Your task to perform on an android device: find which apps use the phone's location Image 0: 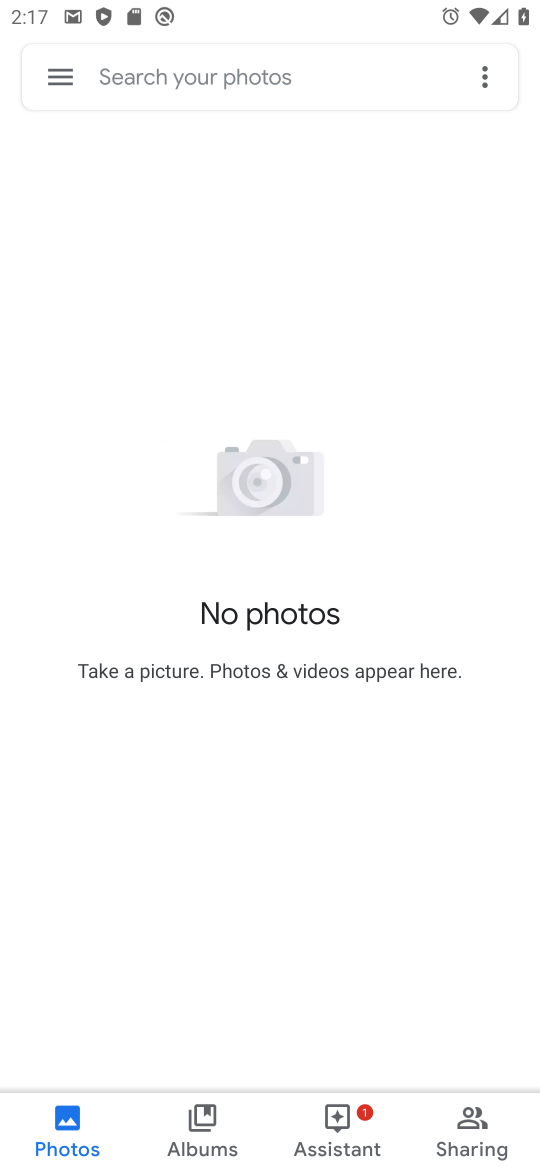
Step 0: press home button
Your task to perform on an android device: find which apps use the phone's location Image 1: 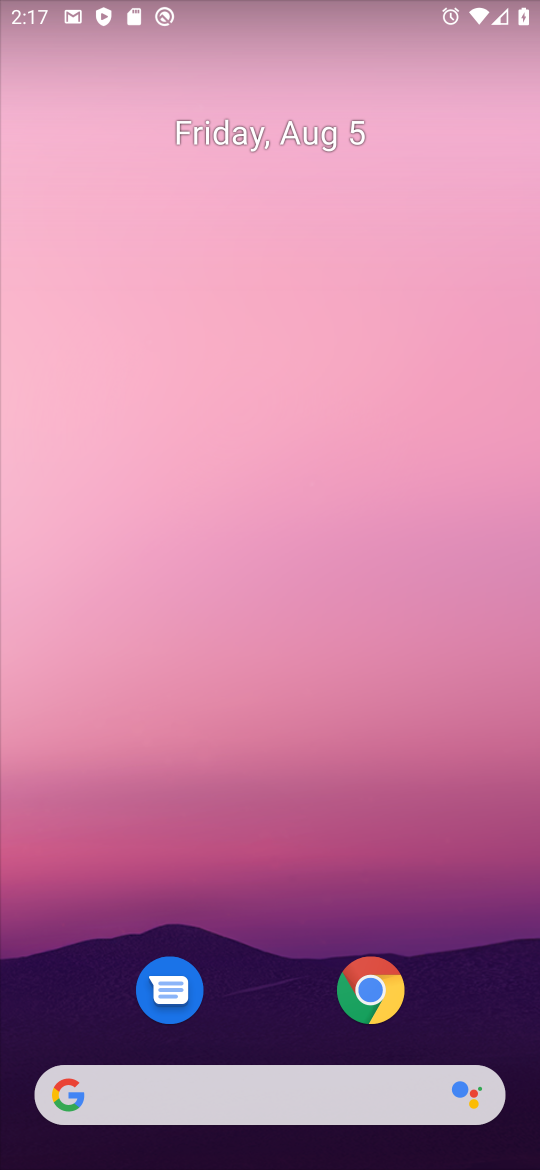
Step 1: drag from (228, 1037) to (153, 289)
Your task to perform on an android device: find which apps use the phone's location Image 2: 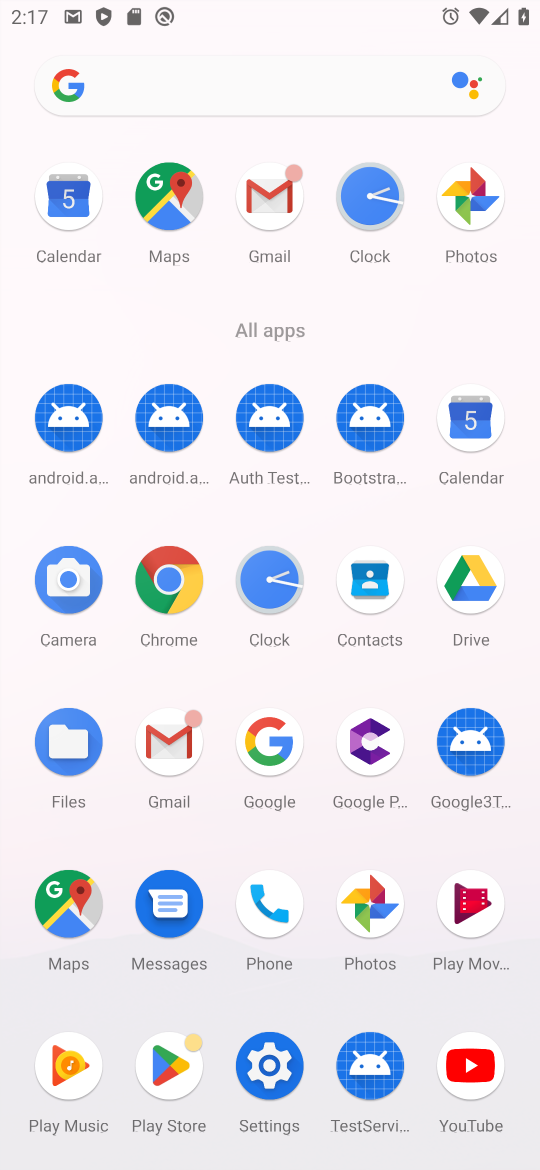
Step 2: click (284, 1087)
Your task to perform on an android device: find which apps use the phone's location Image 3: 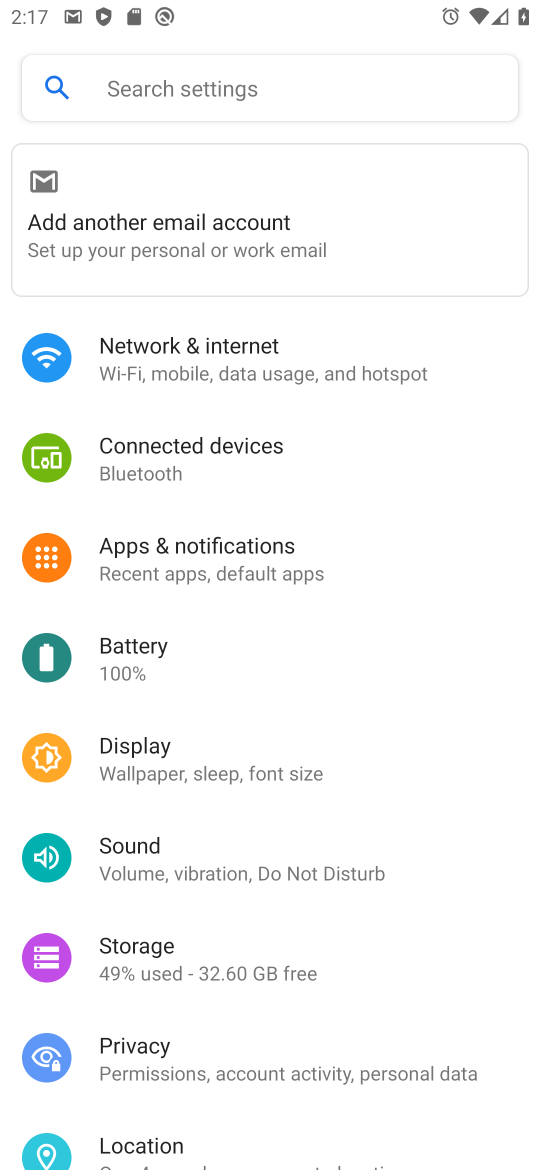
Step 3: click (149, 1148)
Your task to perform on an android device: find which apps use the phone's location Image 4: 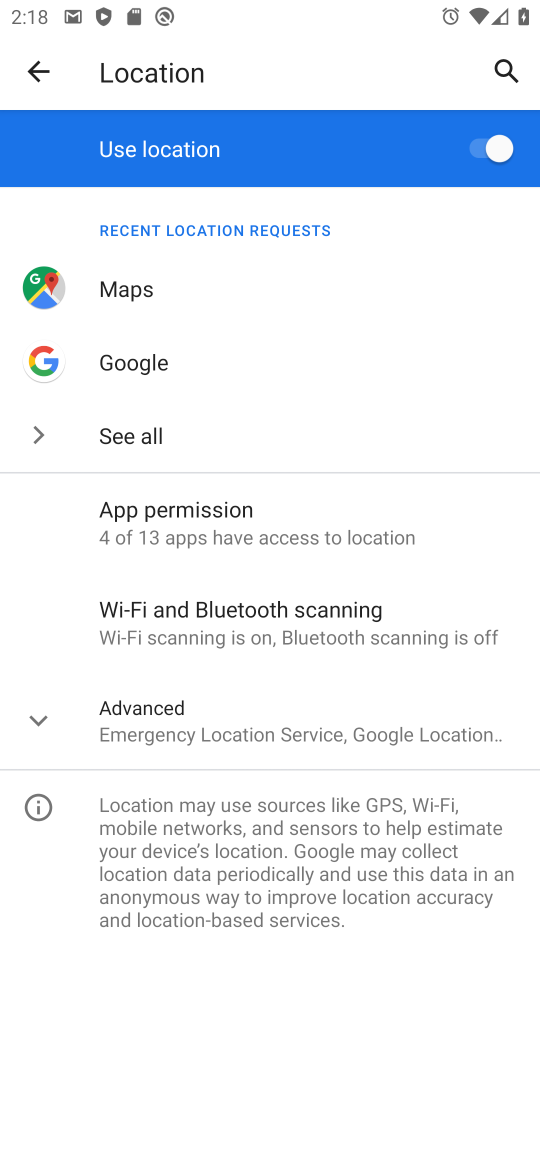
Step 4: click (185, 508)
Your task to perform on an android device: find which apps use the phone's location Image 5: 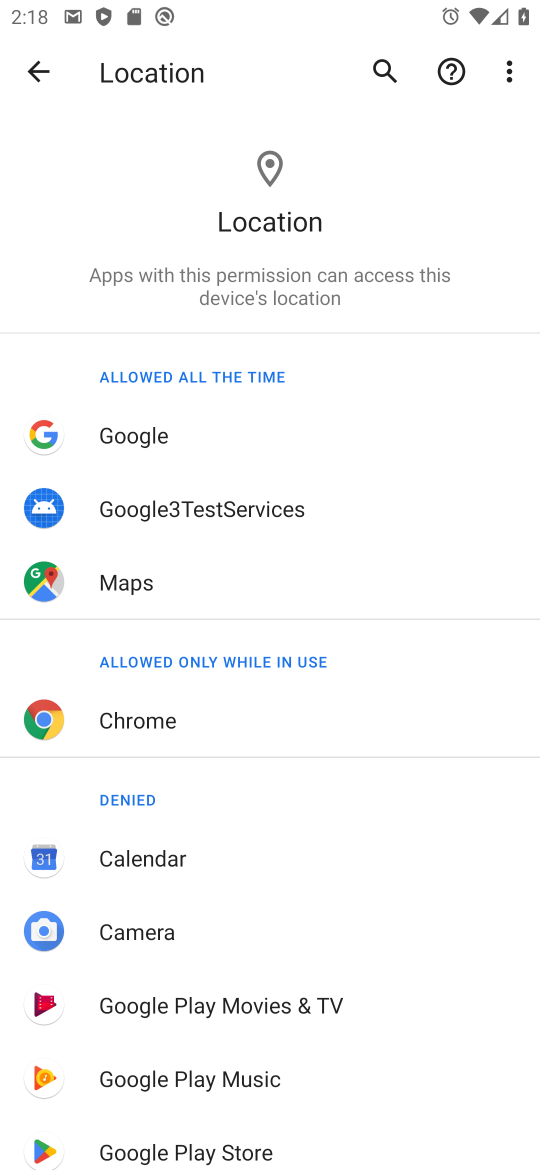
Step 5: task complete